Your task to perform on an android device: turn off notifications in google photos Image 0: 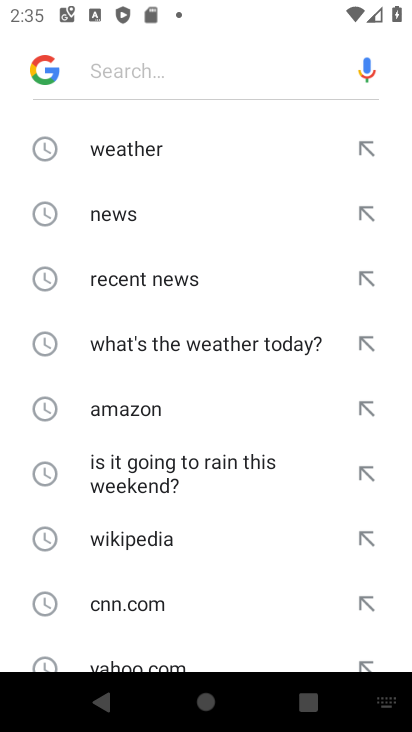
Step 0: press home button
Your task to perform on an android device: turn off notifications in google photos Image 1: 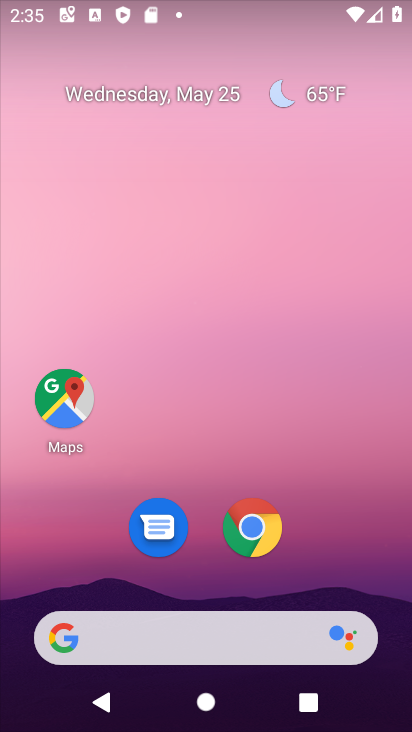
Step 1: drag from (277, 564) to (356, 28)
Your task to perform on an android device: turn off notifications in google photos Image 2: 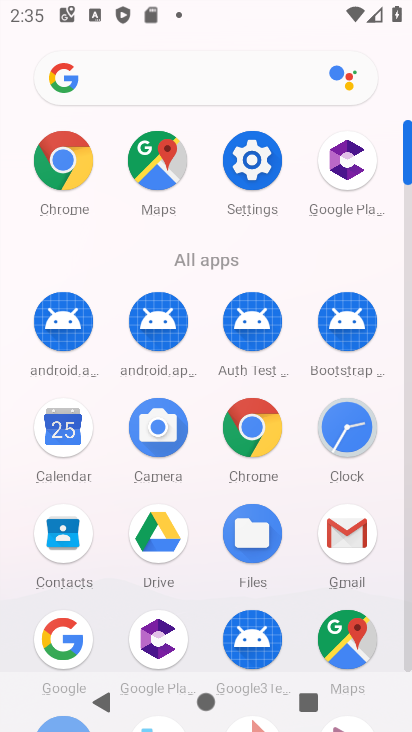
Step 2: click (272, 166)
Your task to perform on an android device: turn off notifications in google photos Image 3: 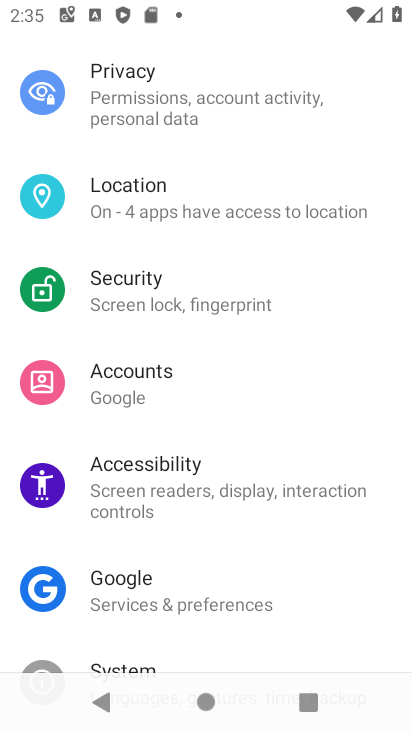
Step 3: press home button
Your task to perform on an android device: turn off notifications in google photos Image 4: 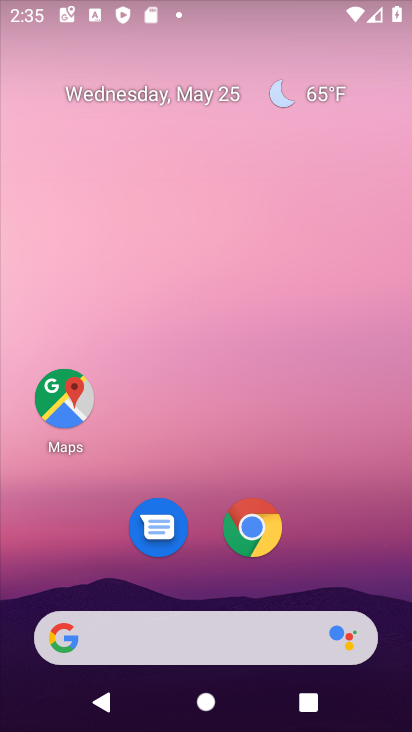
Step 4: drag from (299, 667) to (308, 141)
Your task to perform on an android device: turn off notifications in google photos Image 5: 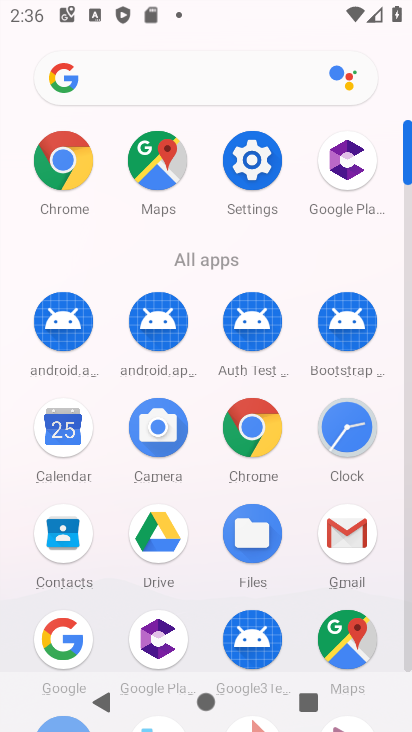
Step 5: drag from (280, 479) to (288, 95)
Your task to perform on an android device: turn off notifications in google photos Image 6: 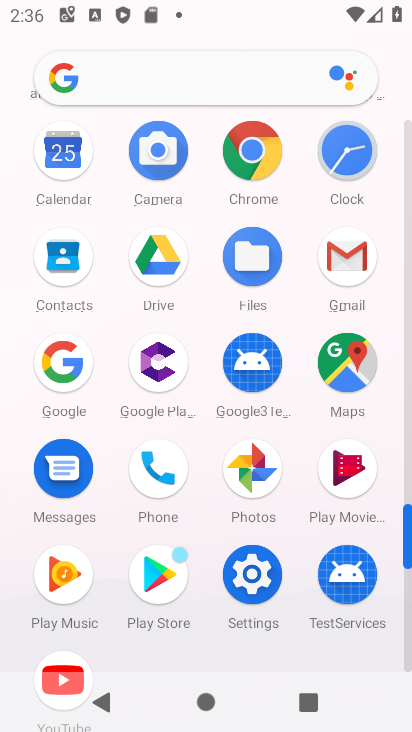
Step 6: click (263, 485)
Your task to perform on an android device: turn off notifications in google photos Image 7: 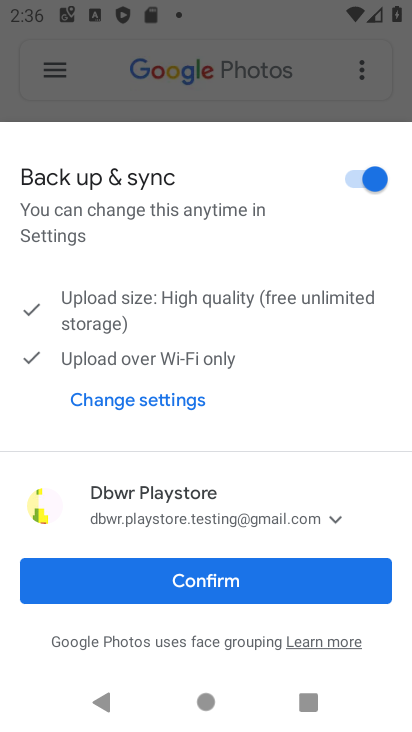
Step 7: click (134, 585)
Your task to perform on an android device: turn off notifications in google photos Image 8: 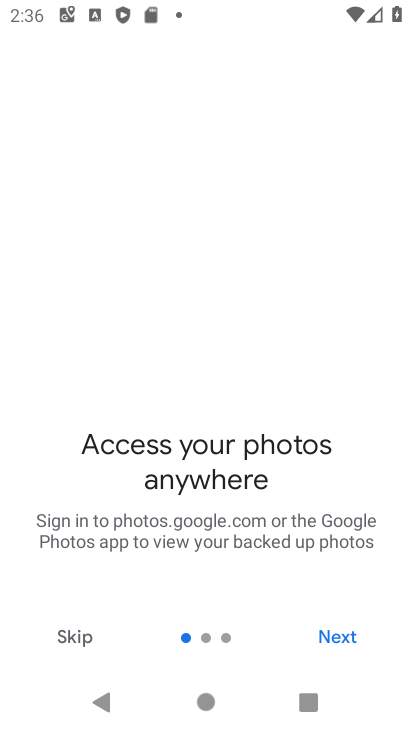
Step 8: click (335, 635)
Your task to perform on an android device: turn off notifications in google photos Image 9: 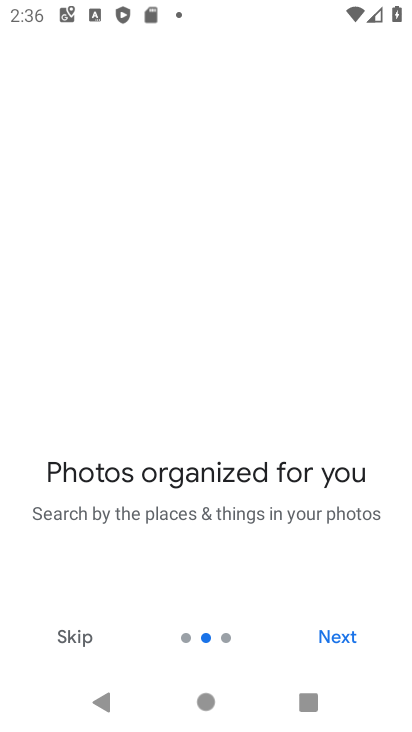
Step 9: click (335, 635)
Your task to perform on an android device: turn off notifications in google photos Image 10: 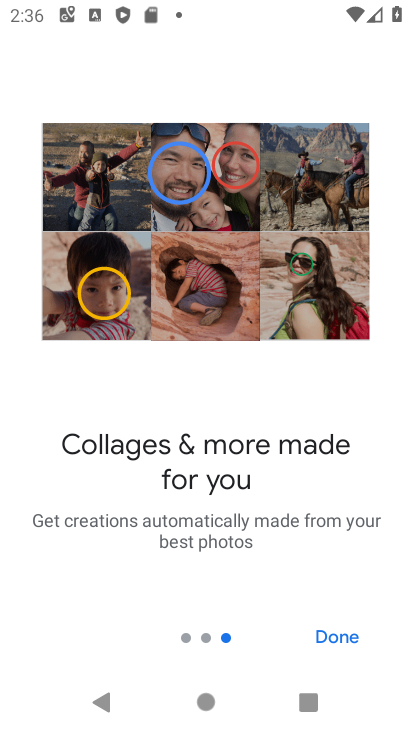
Step 10: click (335, 635)
Your task to perform on an android device: turn off notifications in google photos Image 11: 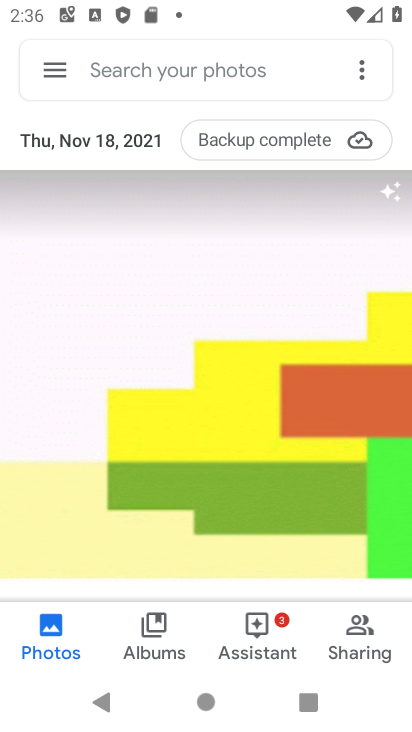
Step 11: click (38, 64)
Your task to perform on an android device: turn off notifications in google photos Image 12: 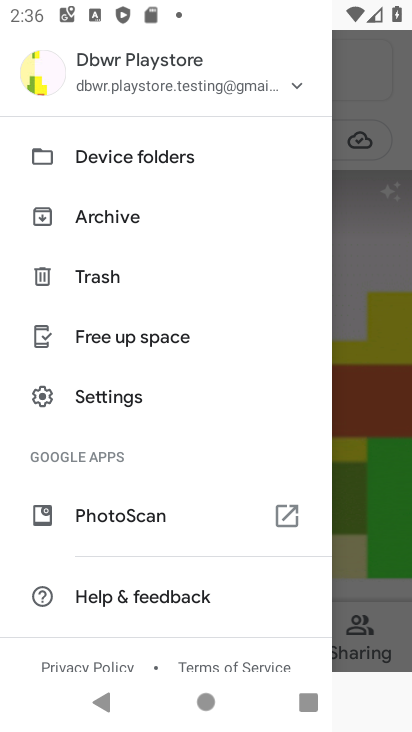
Step 12: click (175, 399)
Your task to perform on an android device: turn off notifications in google photos Image 13: 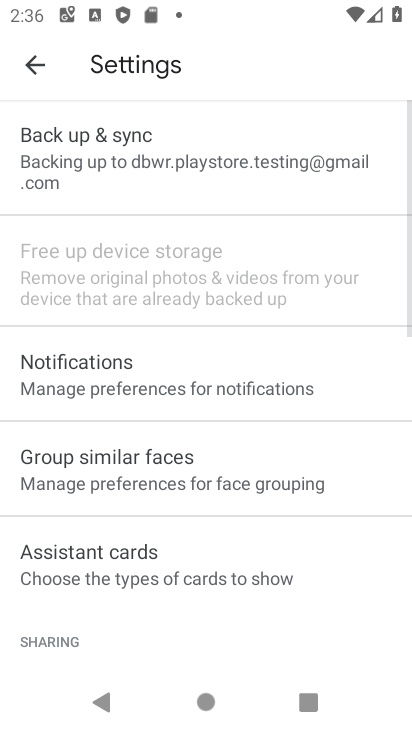
Step 13: click (231, 361)
Your task to perform on an android device: turn off notifications in google photos Image 14: 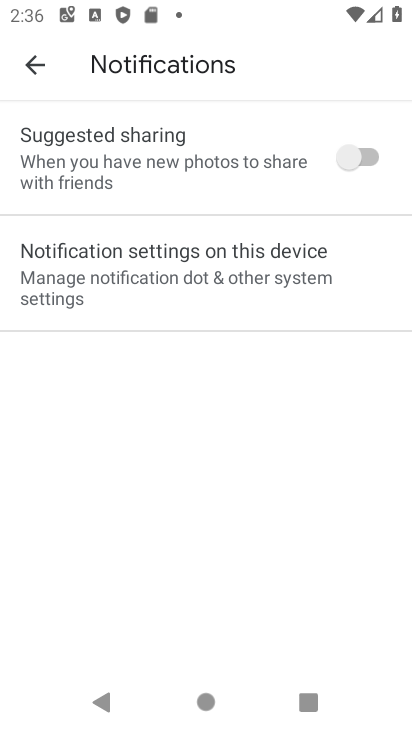
Step 14: click (337, 251)
Your task to perform on an android device: turn off notifications in google photos Image 15: 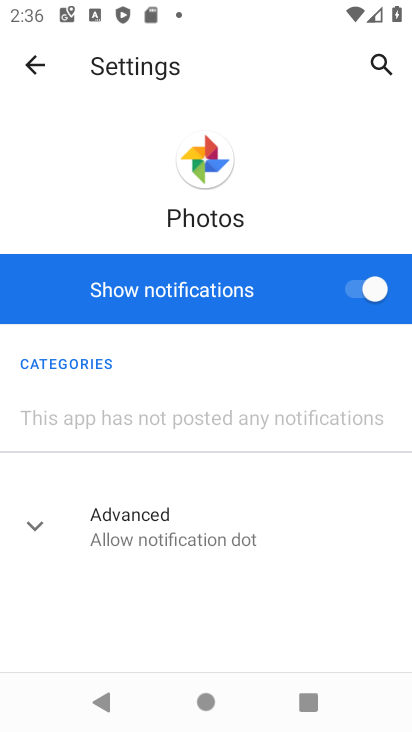
Step 15: click (360, 287)
Your task to perform on an android device: turn off notifications in google photos Image 16: 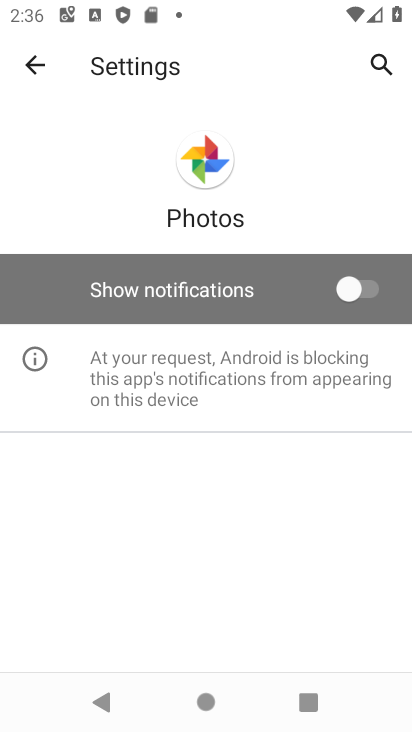
Step 16: task complete